Your task to perform on an android device: turn vacation reply on in the gmail app Image 0: 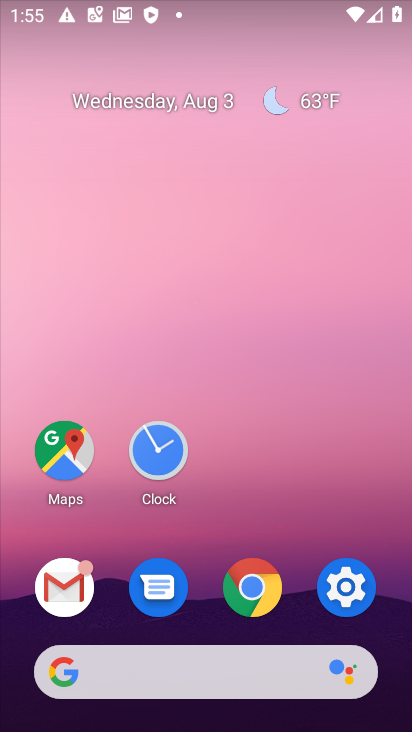
Step 0: click (63, 585)
Your task to perform on an android device: turn vacation reply on in the gmail app Image 1: 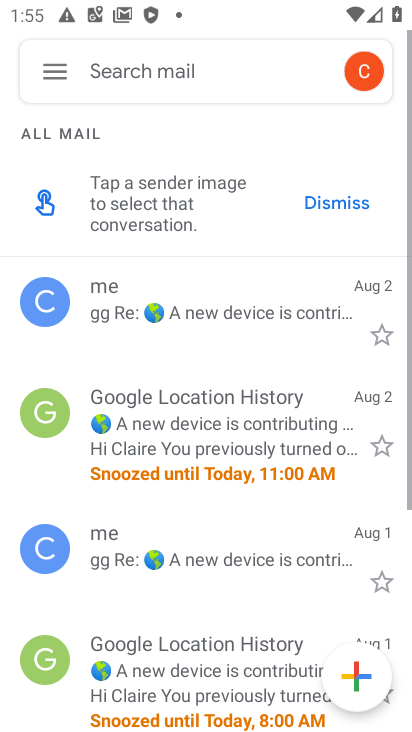
Step 1: click (41, 71)
Your task to perform on an android device: turn vacation reply on in the gmail app Image 2: 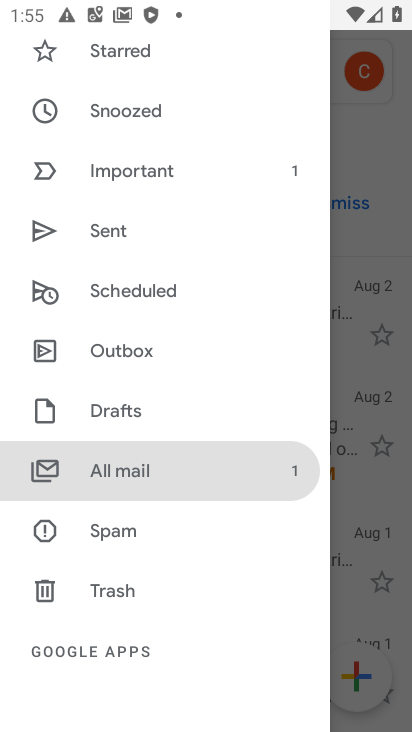
Step 2: drag from (156, 587) to (211, 107)
Your task to perform on an android device: turn vacation reply on in the gmail app Image 3: 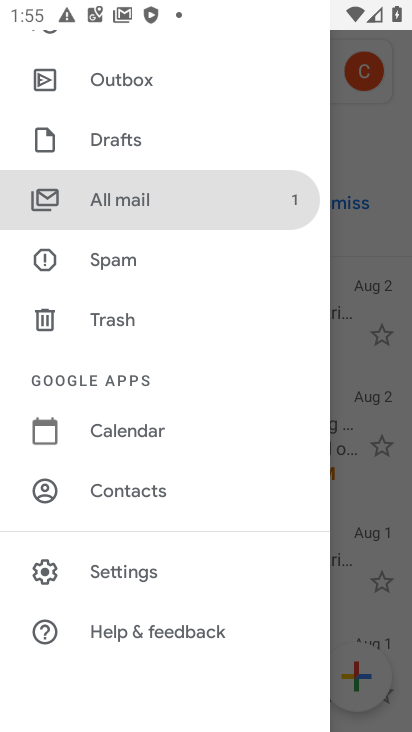
Step 3: click (123, 570)
Your task to perform on an android device: turn vacation reply on in the gmail app Image 4: 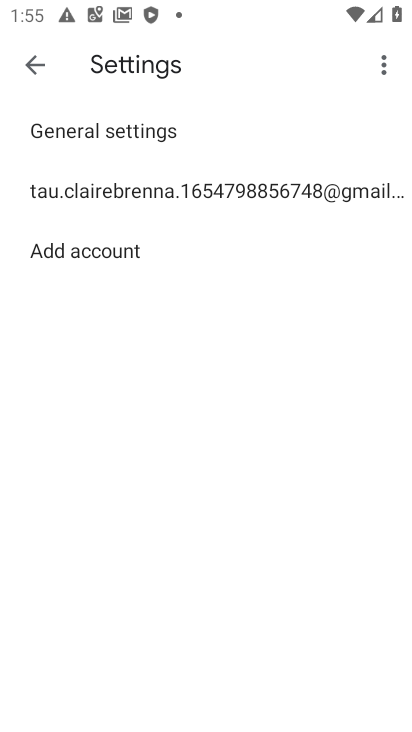
Step 4: click (118, 196)
Your task to perform on an android device: turn vacation reply on in the gmail app Image 5: 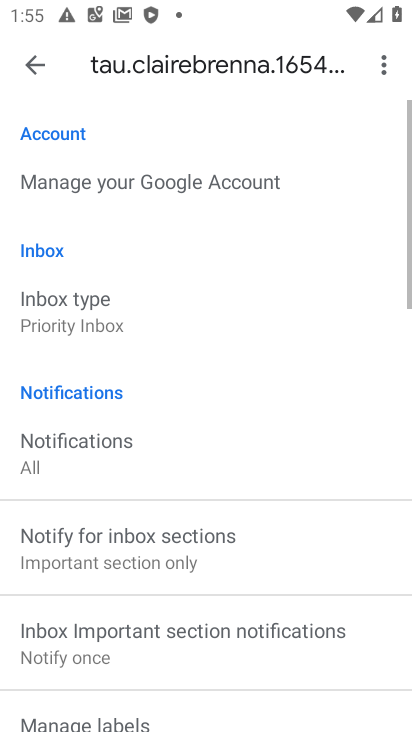
Step 5: drag from (290, 513) to (295, 139)
Your task to perform on an android device: turn vacation reply on in the gmail app Image 6: 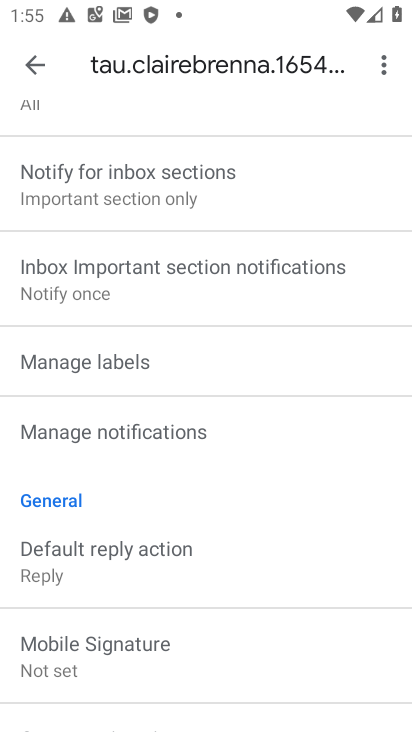
Step 6: drag from (212, 611) to (215, 184)
Your task to perform on an android device: turn vacation reply on in the gmail app Image 7: 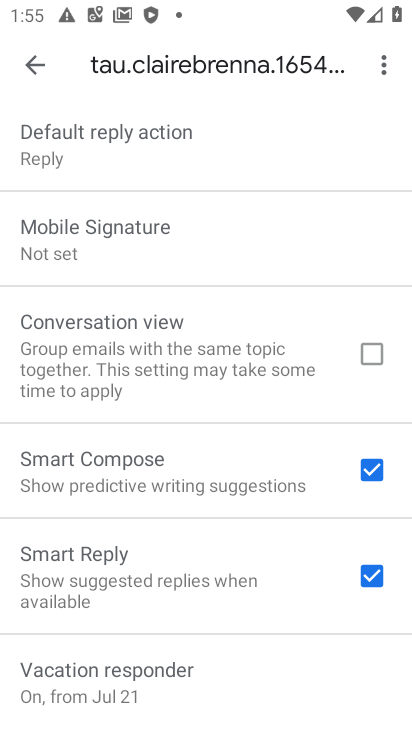
Step 7: click (172, 657)
Your task to perform on an android device: turn vacation reply on in the gmail app Image 8: 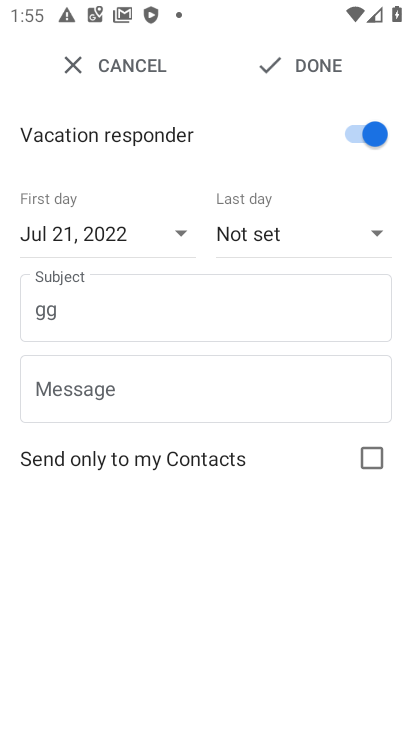
Step 8: task complete